Your task to perform on an android device: Go to calendar. Show me events next week Image 0: 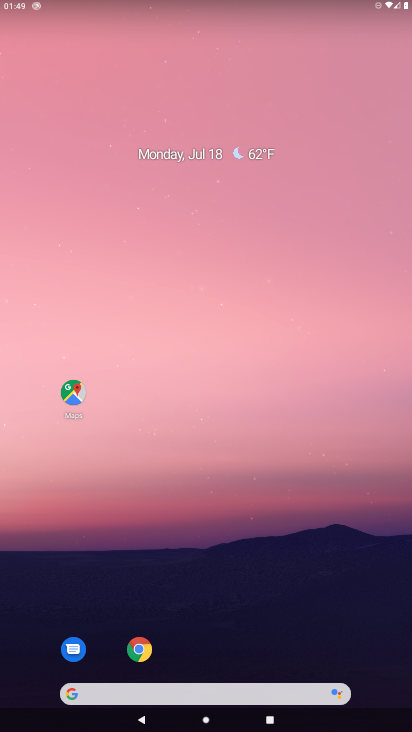
Step 0: drag from (122, 307) to (143, 98)
Your task to perform on an android device: Go to calendar. Show me events next week Image 1: 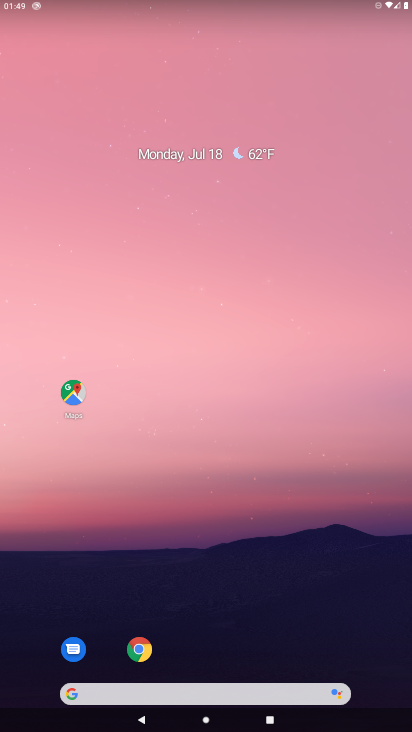
Step 1: drag from (66, 488) to (179, 2)
Your task to perform on an android device: Go to calendar. Show me events next week Image 2: 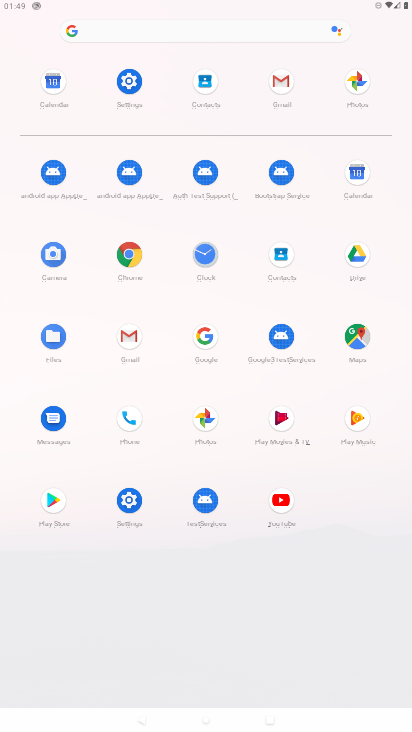
Step 2: click (355, 176)
Your task to perform on an android device: Go to calendar. Show me events next week Image 3: 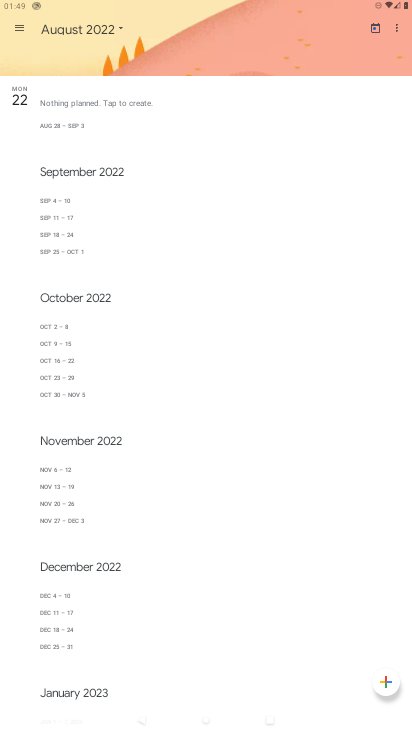
Step 3: click (98, 33)
Your task to perform on an android device: Go to calendar. Show me events next week Image 4: 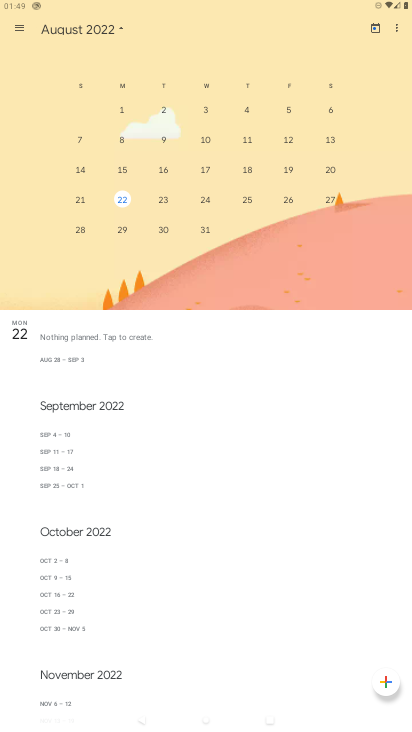
Step 4: task complete